Your task to perform on an android device: open a bookmark in the chrome app Image 0: 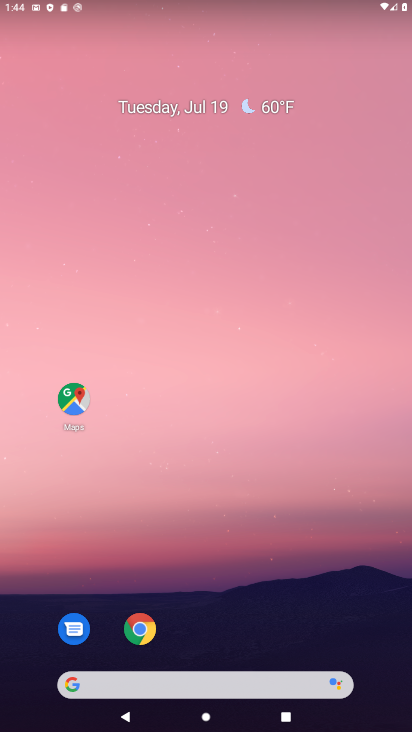
Step 0: click (354, 644)
Your task to perform on an android device: open a bookmark in the chrome app Image 1: 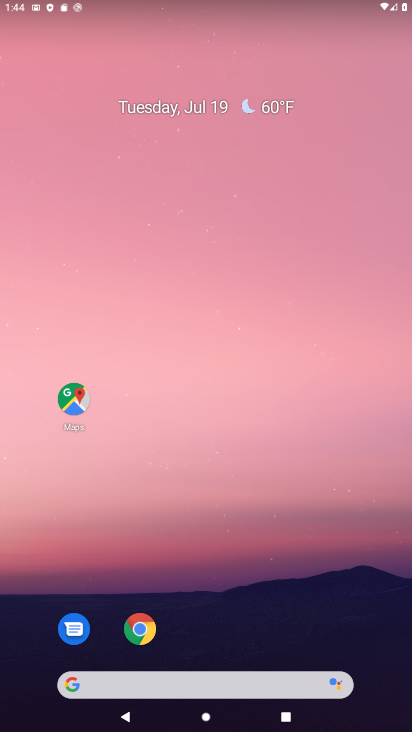
Step 1: click (133, 629)
Your task to perform on an android device: open a bookmark in the chrome app Image 2: 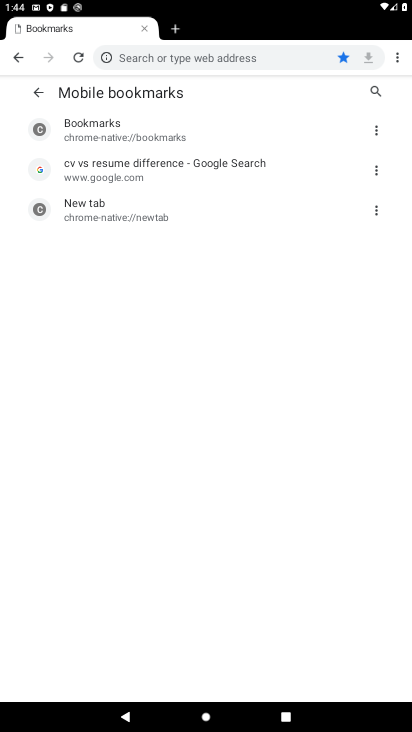
Step 2: click (398, 60)
Your task to perform on an android device: open a bookmark in the chrome app Image 3: 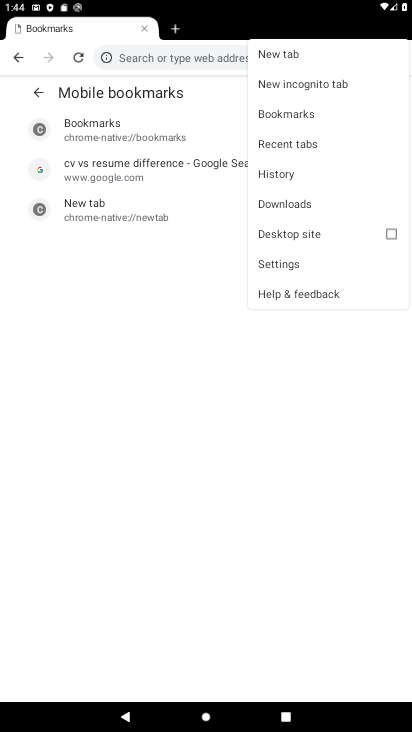
Step 3: click (280, 110)
Your task to perform on an android device: open a bookmark in the chrome app Image 4: 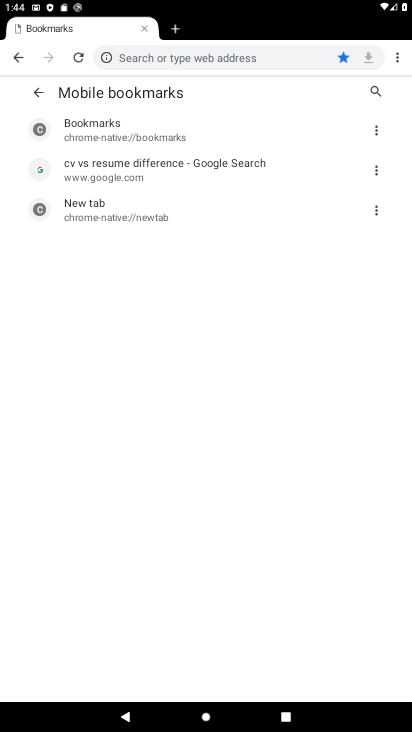
Step 4: task complete